Your task to perform on an android device: Open the calendar and show me this week's events? Image 0: 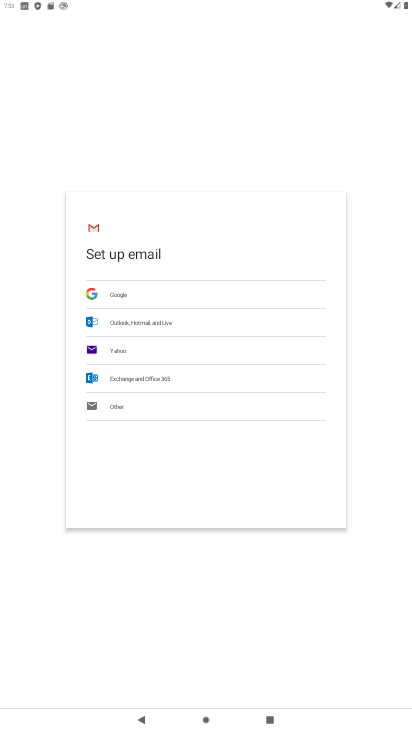
Step 0: press home button
Your task to perform on an android device: Open the calendar and show me this week's events? Image 1: 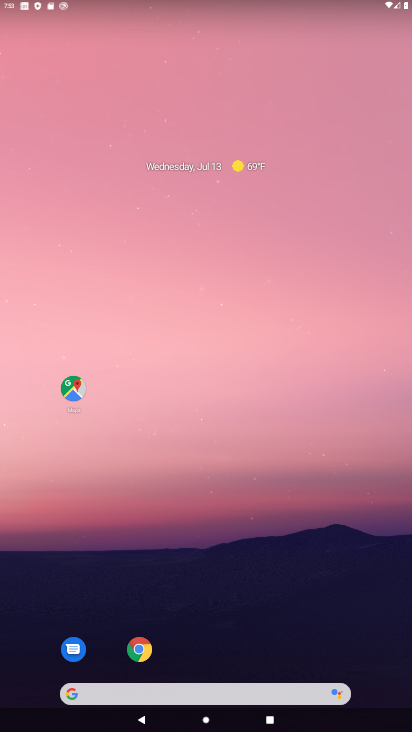
Step 1: drag from (198, 689) to (237, 284)
Your task to perform on an android device: Open the calendar and show me this week's events? Image 2: 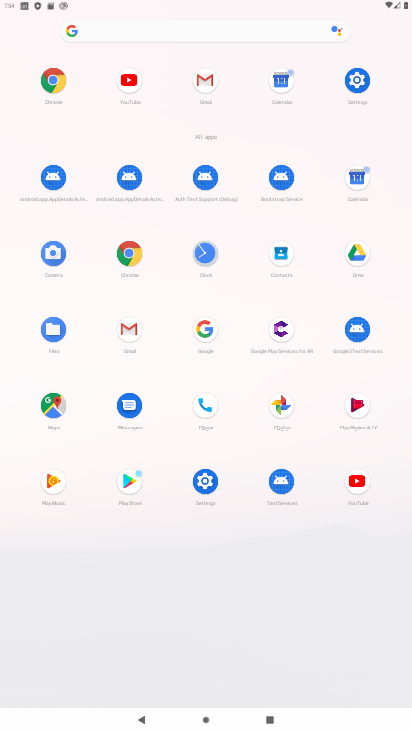
Step 2: click (356, 180)
Your task to perform on an android device: Open the calendar and show me this week's events? Image 3: 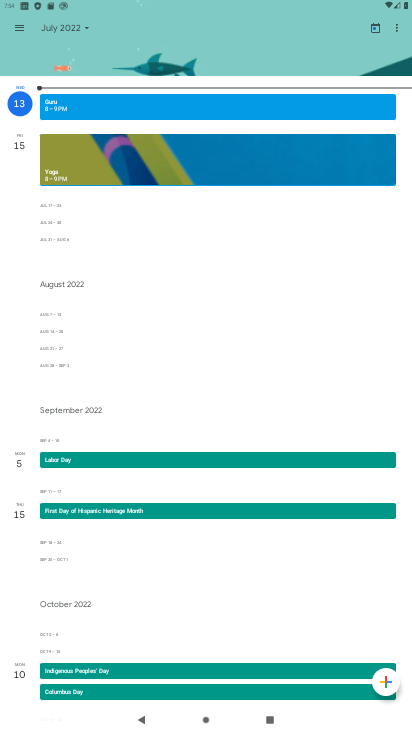
Step 3: click (160, 175)
Your task to perform on an android device: Open the calendar and show me this week's events? Image 4: 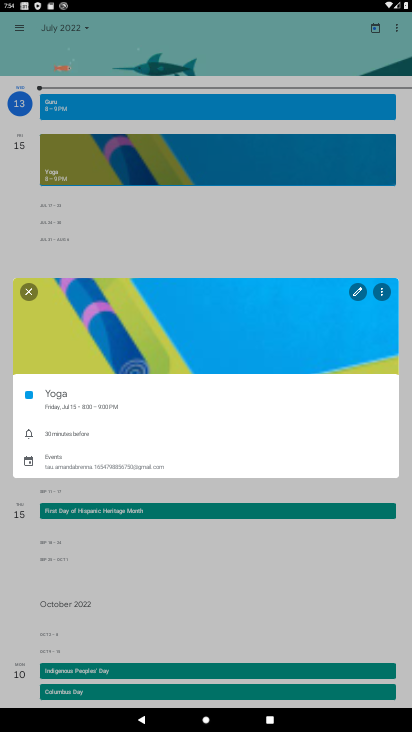
Step 4: click (31, 286)
Your task to perform on an android device: Open the calendar and show me this week's events? Image 5: 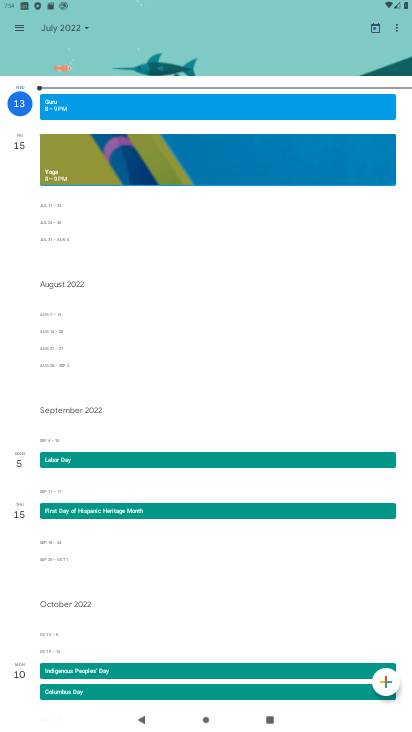
Step 5: task complete